Your task to perform on an android device: Search for a sofa on article.com Image 0: 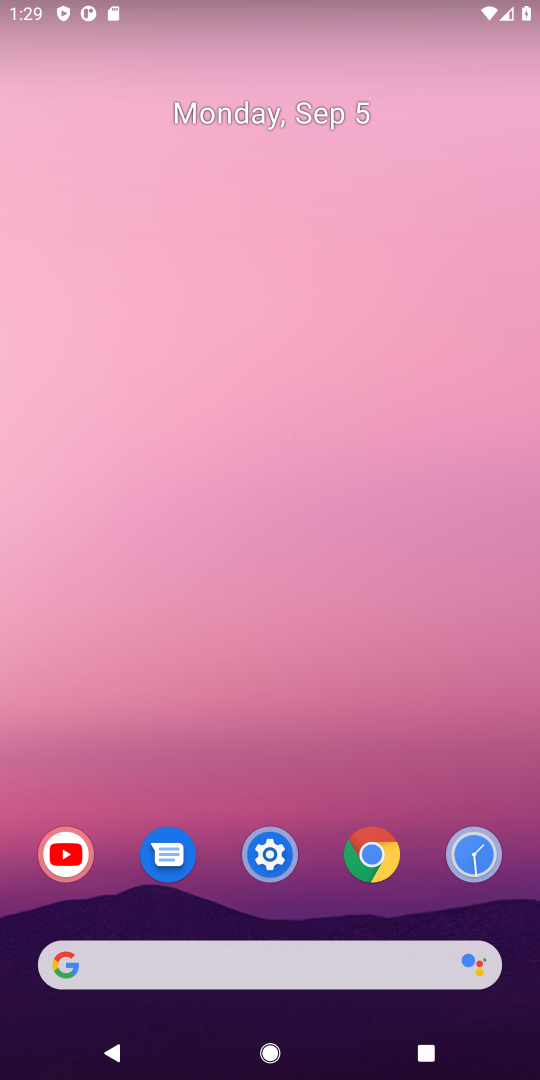
Step 0: click (364, 955)
Your task to perform on an android device: Search for a sofa on article.com Image 1: 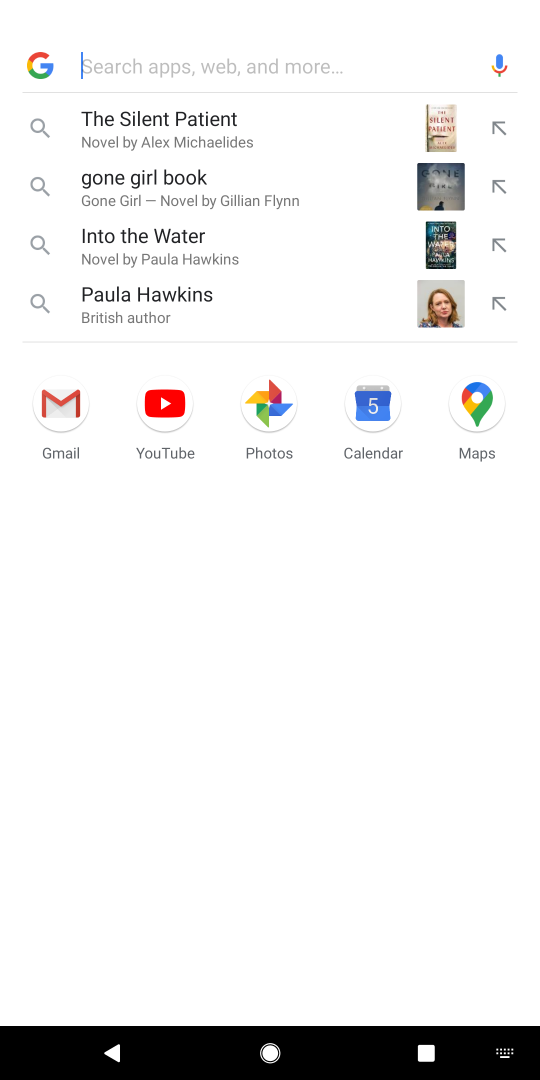
Step 1: type "article.com"
Your task to perform on an android device: Search for a sofa on article.com Image 2: 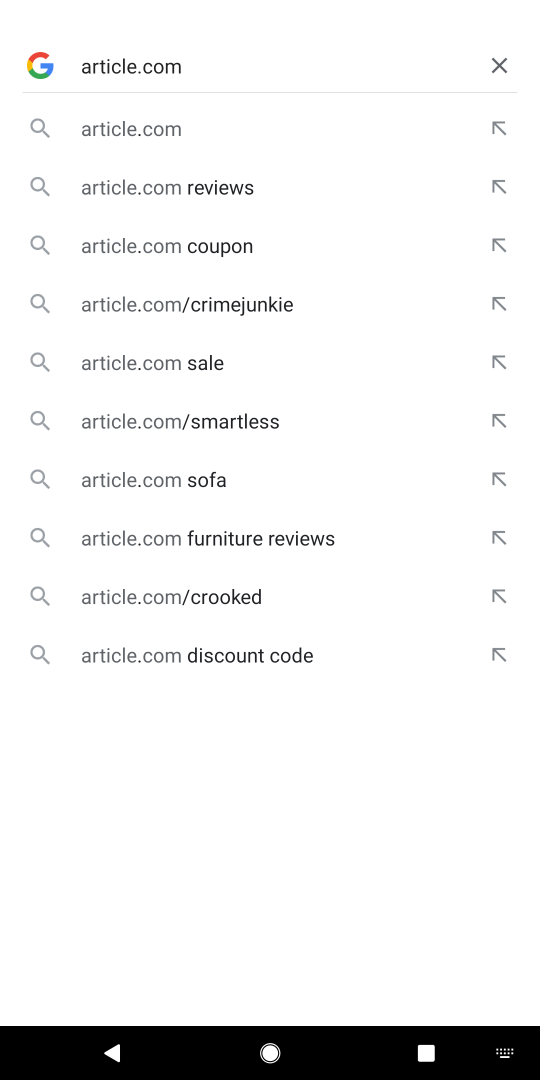
Step 2: click (201, 129)
Your task to perform on an android device: Search for a sofa on article.com Image 3: 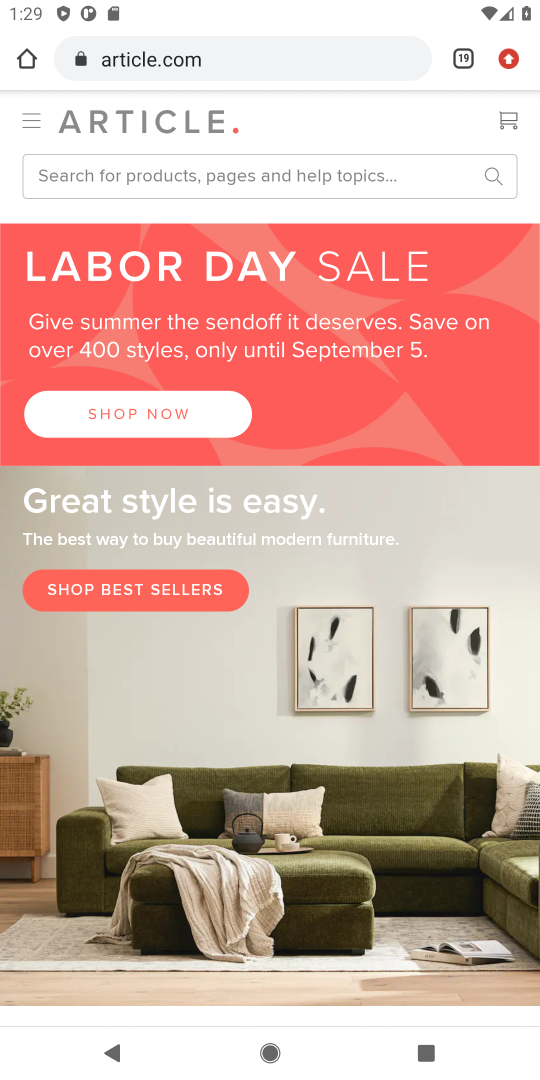
Step 3: click (201, 179)
Your task to perform on an android device: Search for a sofa on article.com Image 4: 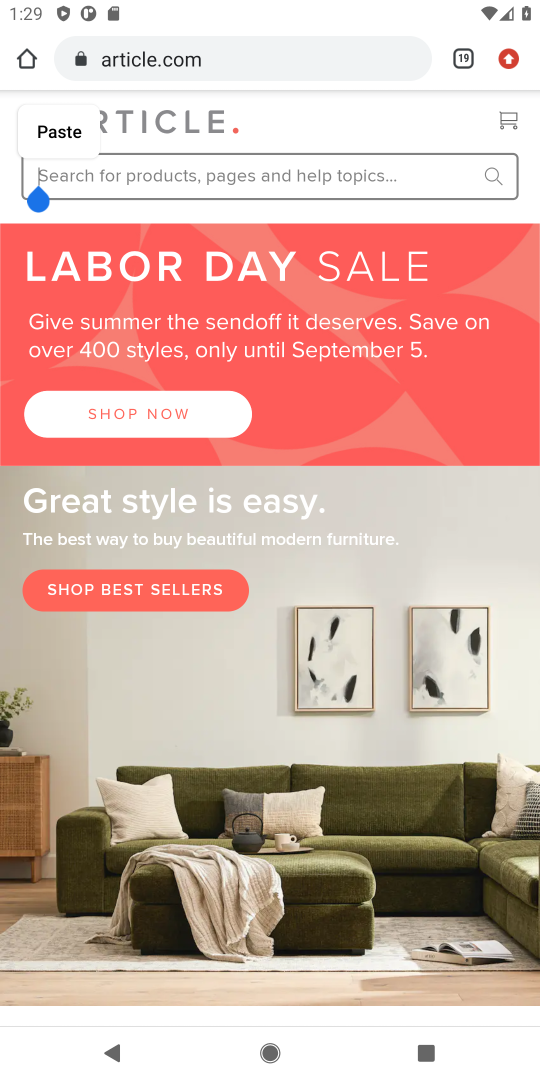
Step 4: type "sofa "
Your task to perform on an android device: Search for a sofa on article.com Image 5: 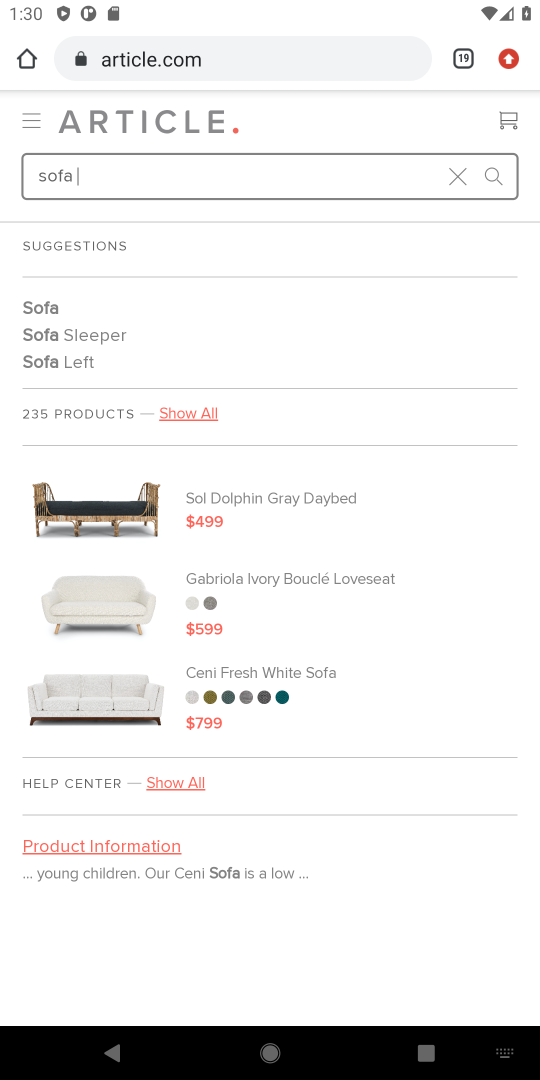
Step 5: click (491, 177)
Your task to perform on an android device: Search for a sofa on article.com Image 6: 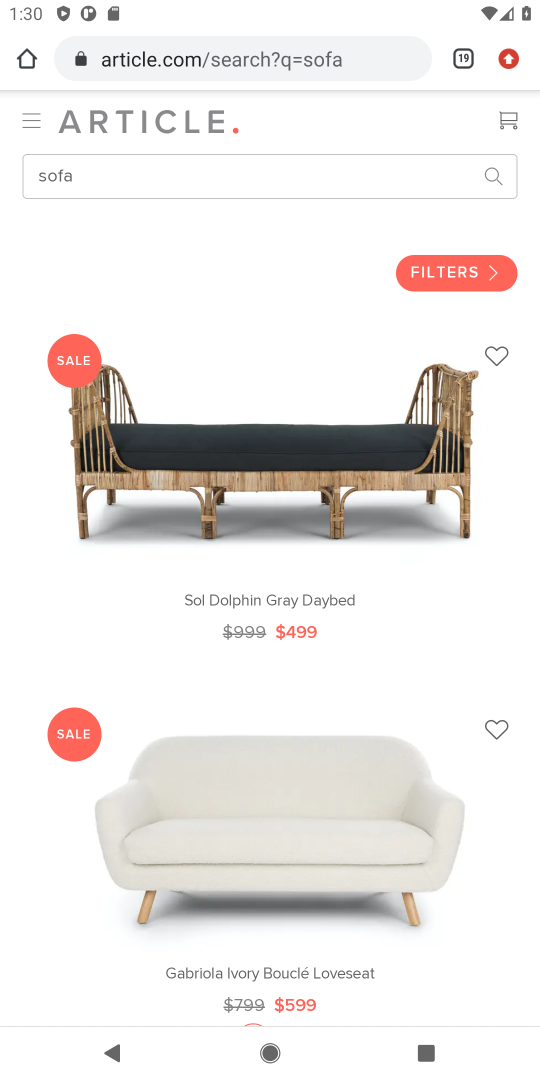
Step 6: task complete